Your task to perform on an android device: change the clock display to digital Image 0: 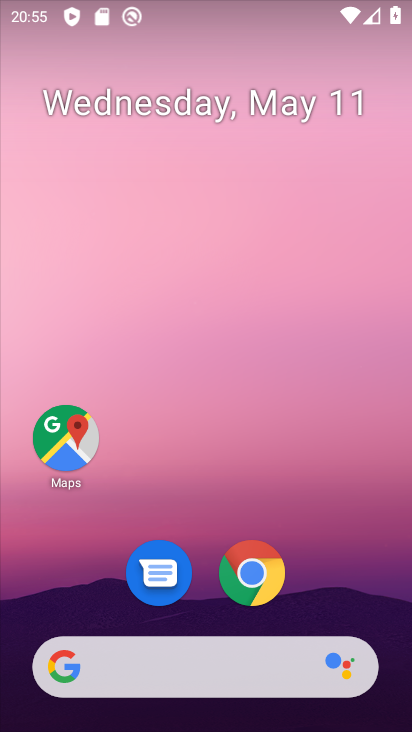
Step 0: drag from (348, 585) to (302, 1)
Your task to perform on an android device: change the clock display to digital Image 1: 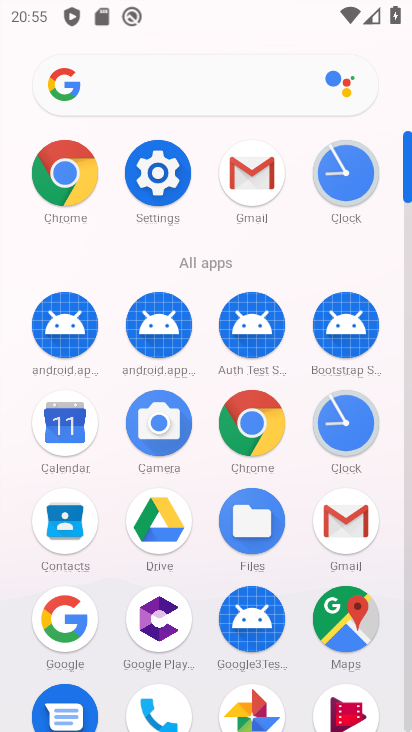
Step 1: click (148, 195)
Your task to perform on an android device: change the clock display to digital Image 2: 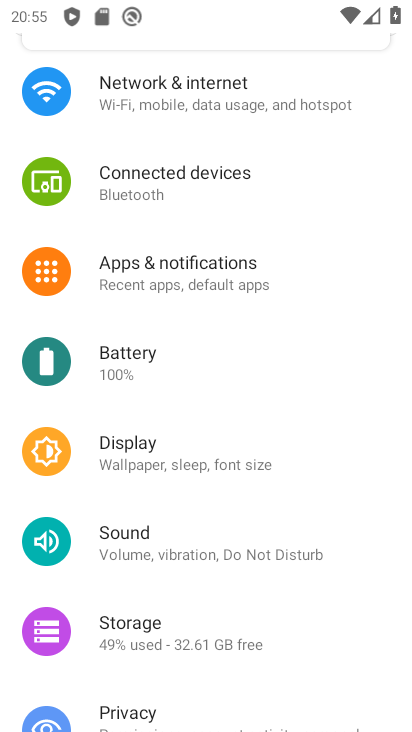
Step 2: drag from (279, 214) to (337, 564)
Your task to perform on an android device: change the clock display to digital Image 3: 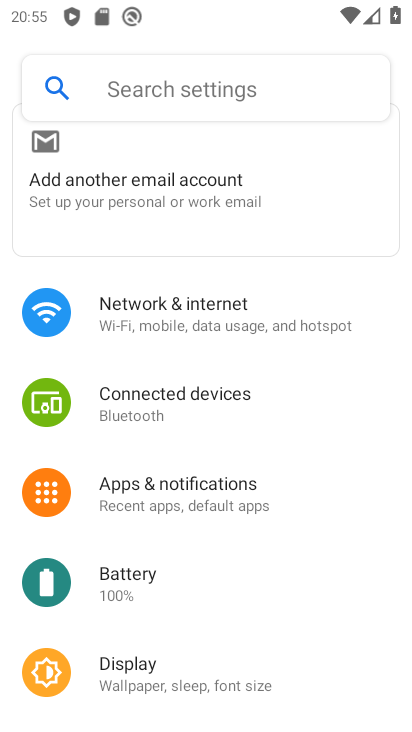
Step 3: press home button
Your task to perform on an android device: change the clock display to digital Image 4: 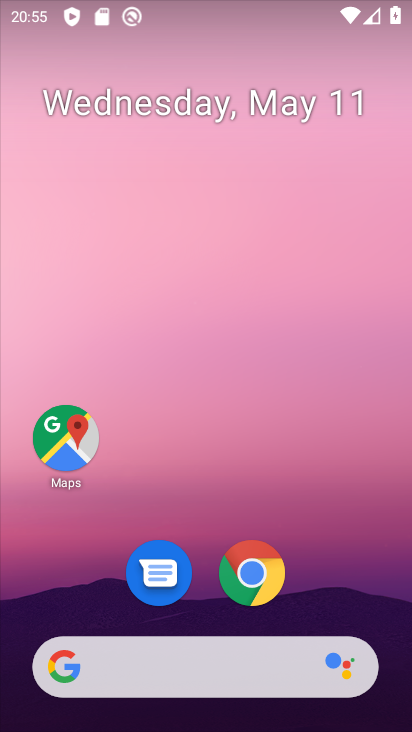
Step 4: drag from (337, 552) to (314, 214)
Your task to perform on an android device: change the clock display to digital Image 5: 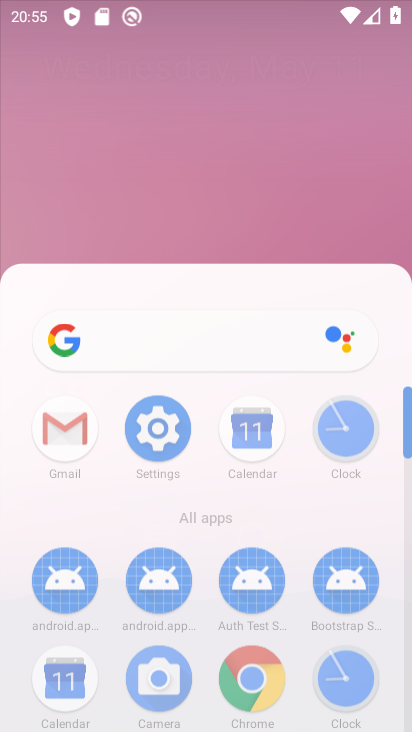
Step 5: drag from (341, 624) to (330, 441)
Your task to perform on an android device: change the clock display to digital Image 6: 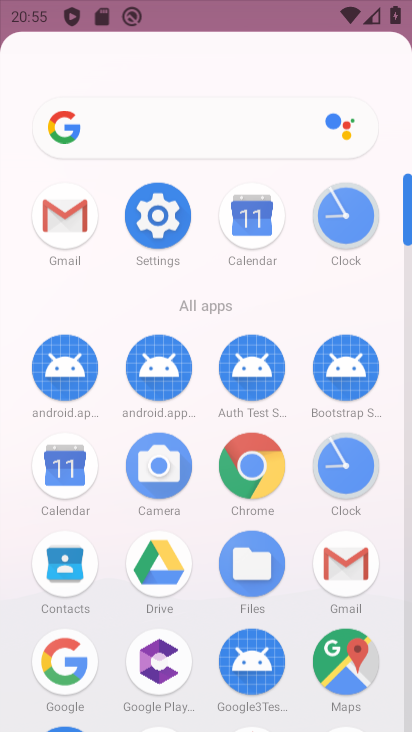
Step 6: click (393, 454)
Your task to perform on an android device: change the clock display to digital Image 7: 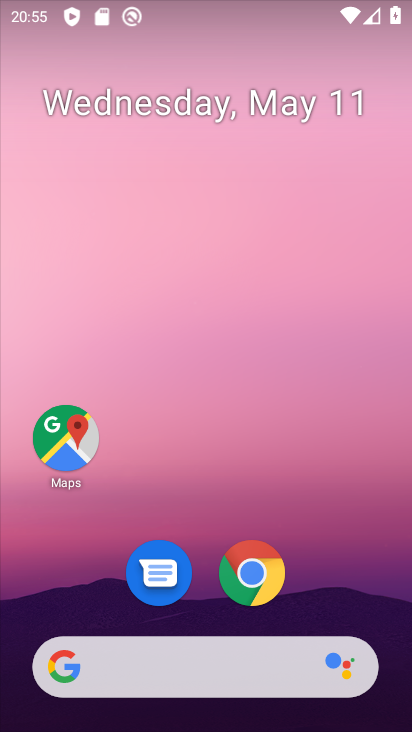
Step 7: drag from (349, 491) to (300, 104)
Your task to perform on an android device: change the clock display to digital Image 8: 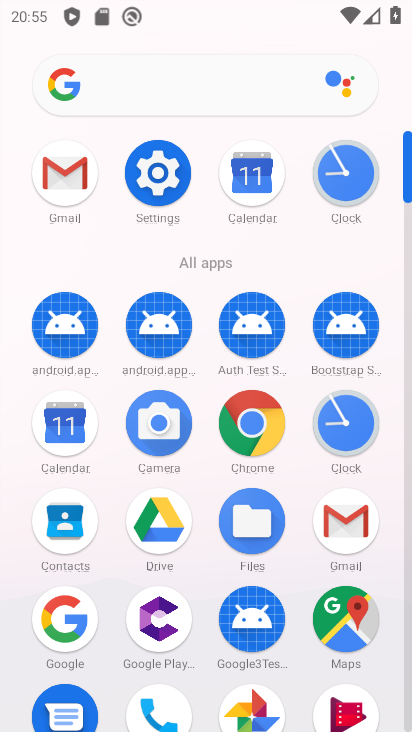
Step 8: drag from (340, 538) to (310, 365)
Your task to perform on an android device: change the clock display to digital Image 9: 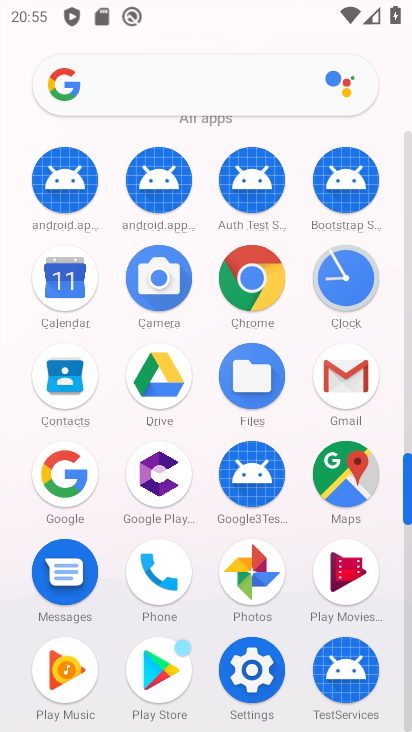
Step 9: click (344, 451)
Your task to perform on an android device: change the clock display to digital Image 10: 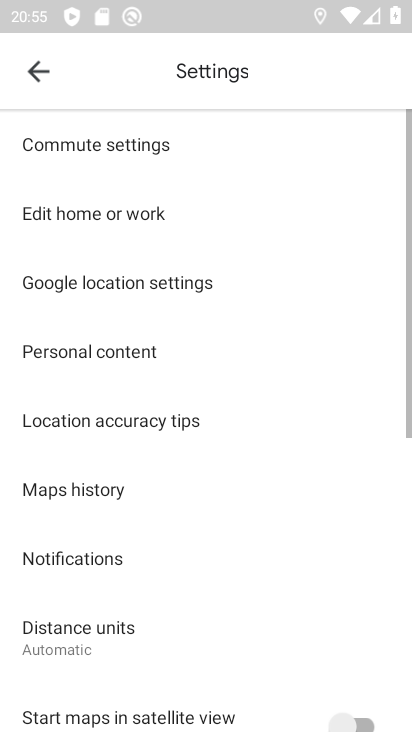
Step 10: click (53, 90)
Your task to perform on an android device: change the clock display to digital Image 11: 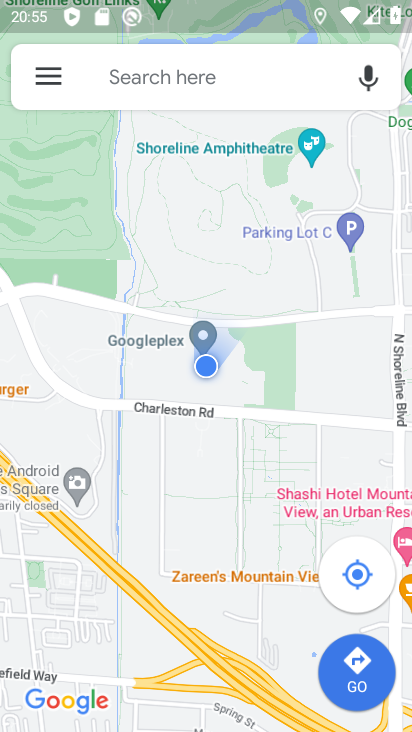
Step 11: press home button
Your task to perform on an android device: change the clock display to digital Image 12: 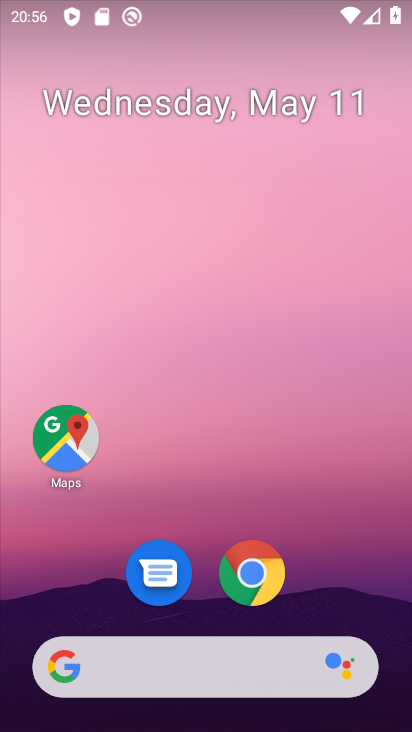
Step 12: drag from (366, 568) to (362, 38)
Your task to perform on an android device: change the clock display to digital Image 13: 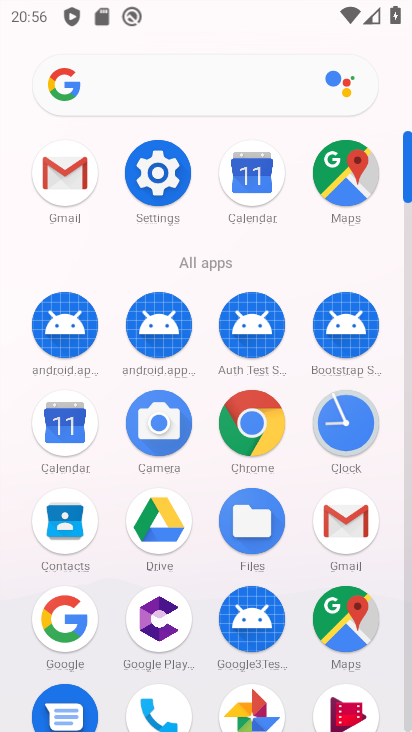
Step 13: drag from (334, 409) to (235, 136)
Your task to perform on an android device: change the clock display to digital Image 14: 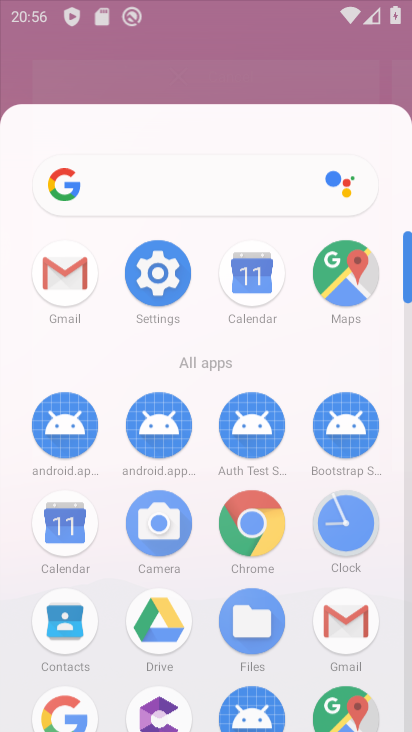
Step 14: drag from (357, 444) to (281, 323)
Your task to perform on an android device: change the clock display to digital Image 15: 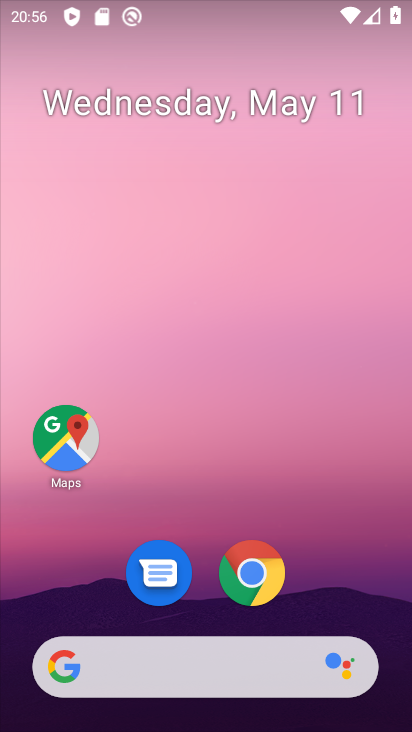
Step 15: drag from (327, 559) to (299, 58)
Your task to perform on an android device: change the clock display to digital Image 16: 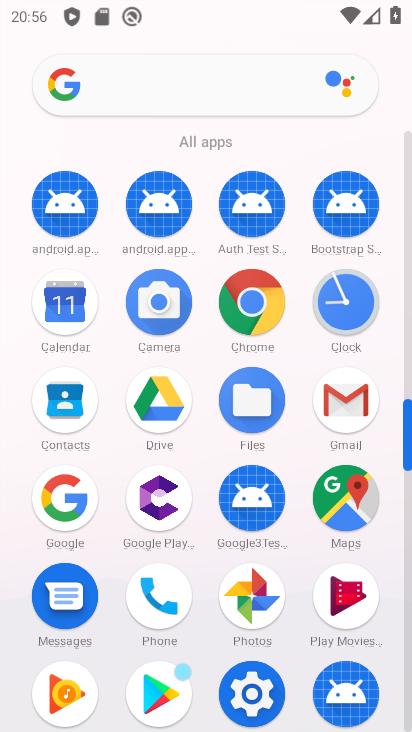
Step 16: drag from (335, 279) to (49, 152)
Your task to perform on an android device: change the clock display to digital Image 17: 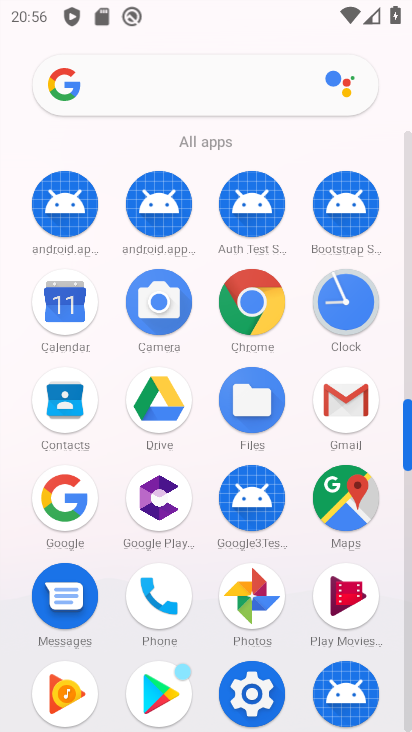
Step 17: click (340, 295)
Your task to perform on an android device: change the clock display to digital Image 18: 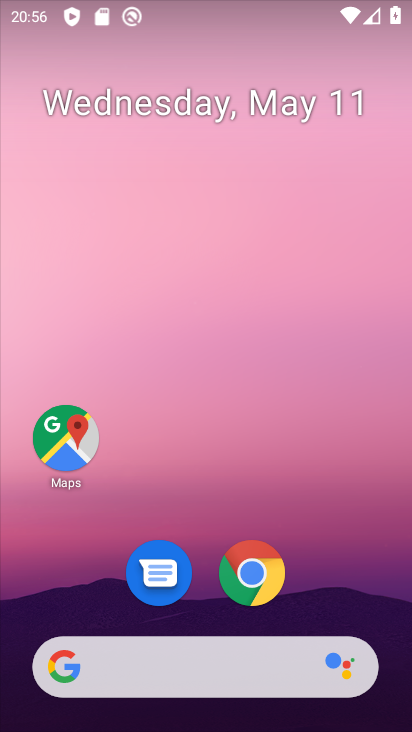
Step 18: drag from (307, 528) to (298, 93)
Your task to perform on an android device: change the clock display to digital Image 19: 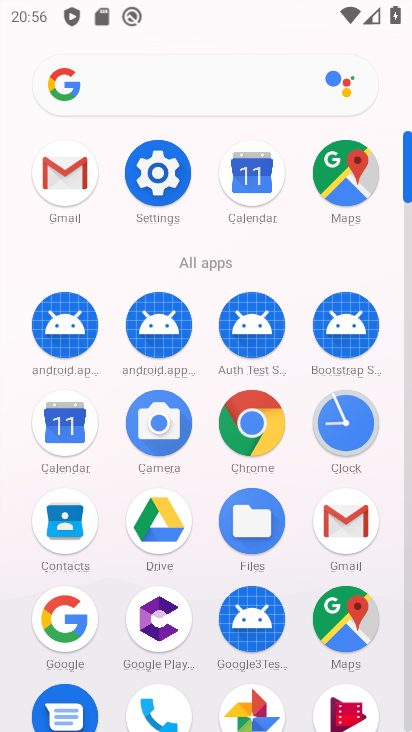
Step 19: click (354, 439)
Your task to perform on an android device: change the clock display to digital Image 20: 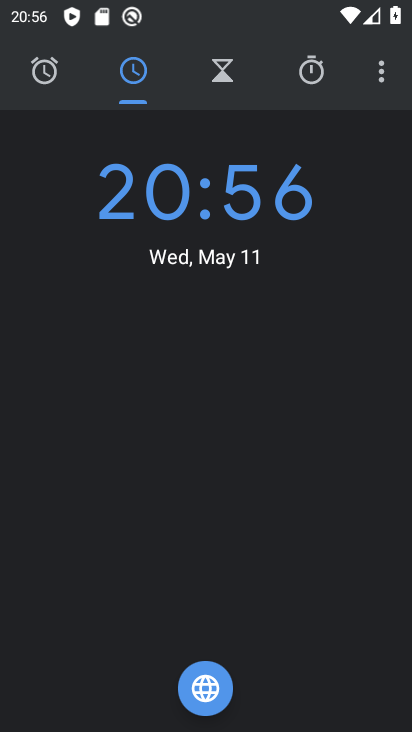
Step 20: click (366, 59)
Your task to perform on an android device: change the clock display to digital Image 21: 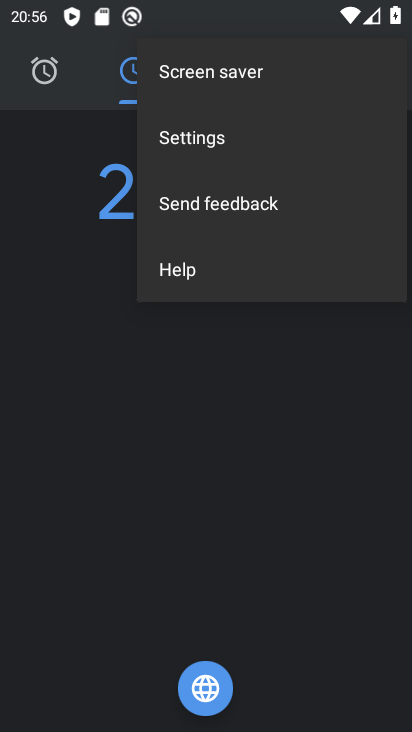
Step 21: click (266, 143)
Your task to perform on an android device: change the clock display to digital Image 22: 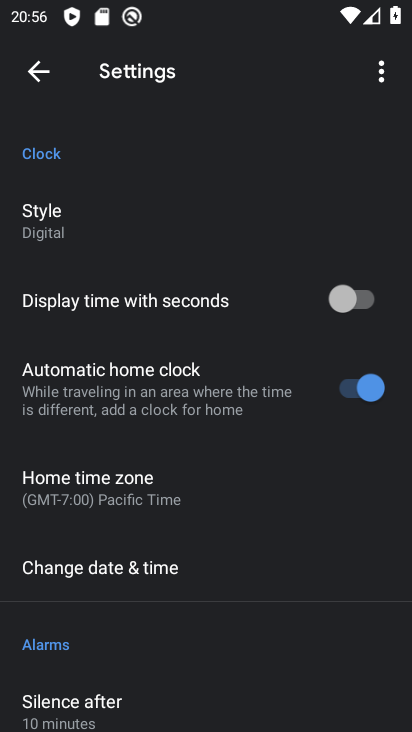
Step 22: task complete